Your task to perform on an android device: Clear all items from cart on costco. Image 0: 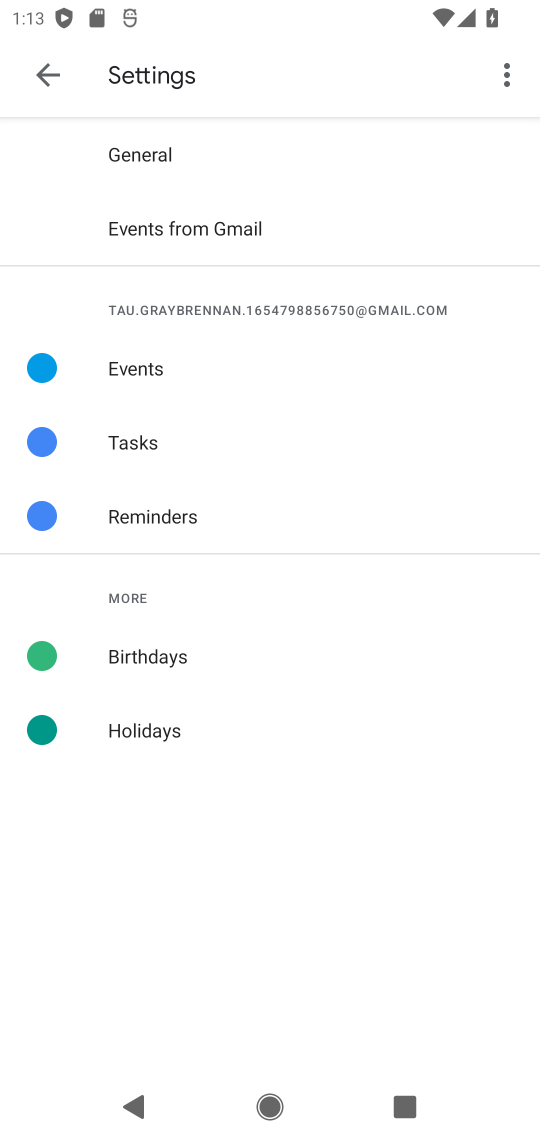
Step 0: press home button
Your task to perform on an android device: Clear all items from cart on costco. Image 1: 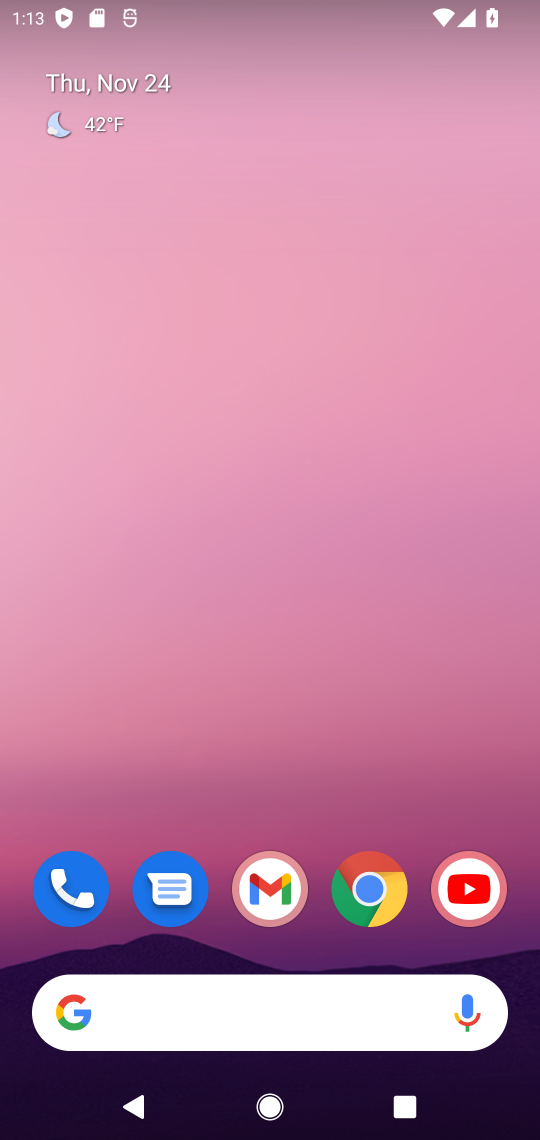
Step 1: click (365, 893)
Your task to perform on an android device: Clear all items from cart on costco. Image 2: 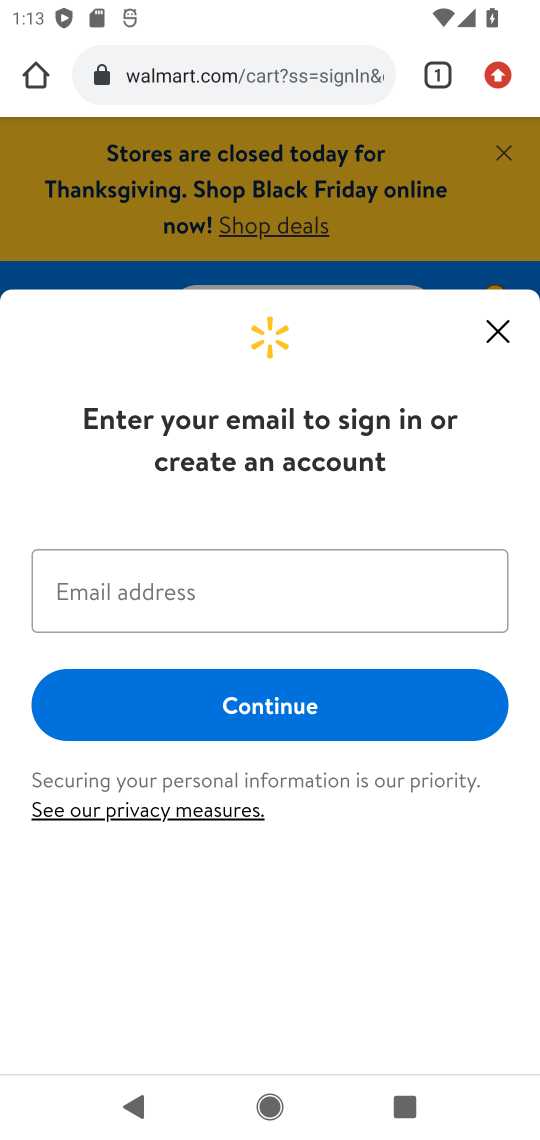
Step 2: click (150, 76)
Your task to perform on an android device: Clear all items from cart on costco. Image 3: 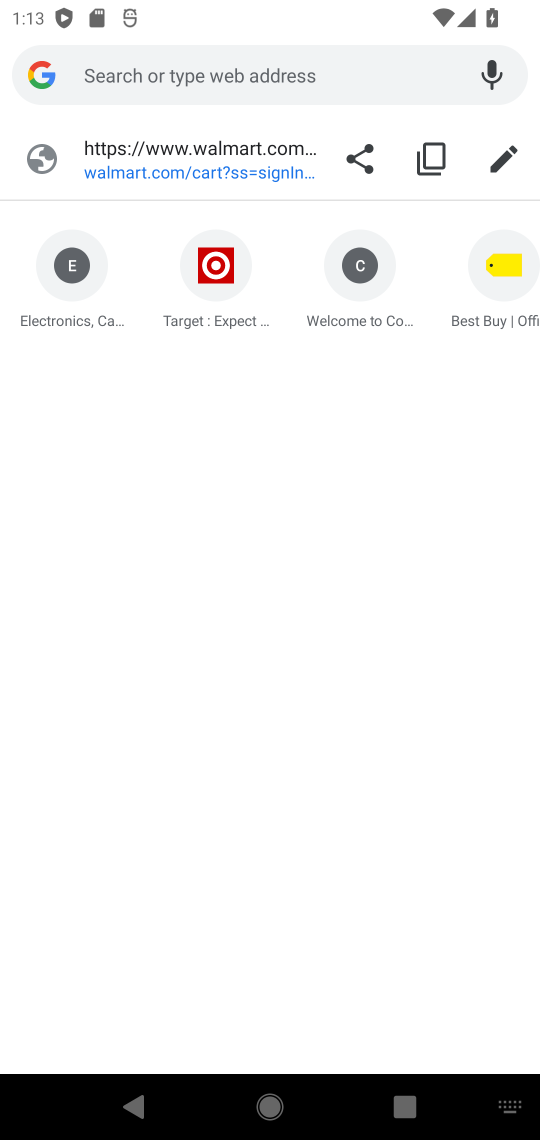
Step 3: type "costco.com"
Your task to perform on an android device: Clear all items from cart on costco. Image 4: 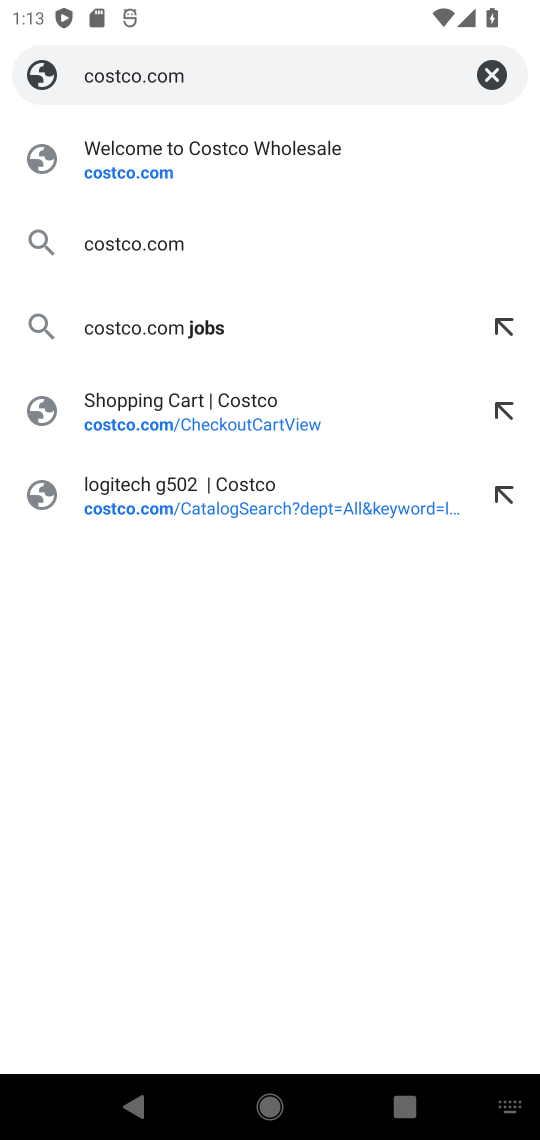
Step 4: click (95, 173)
Your task to perform on an android device: Clear all items from cart on costco. Image 5: 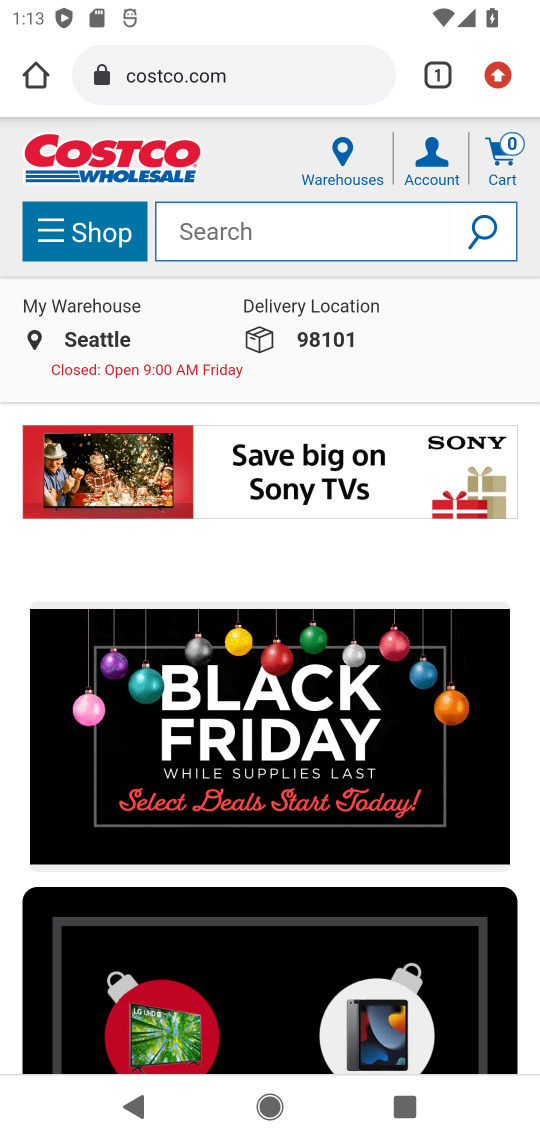
Step 5: click (504, 167)
Your task to perform on an android device: Clear all items from cart on costco. Image 6: 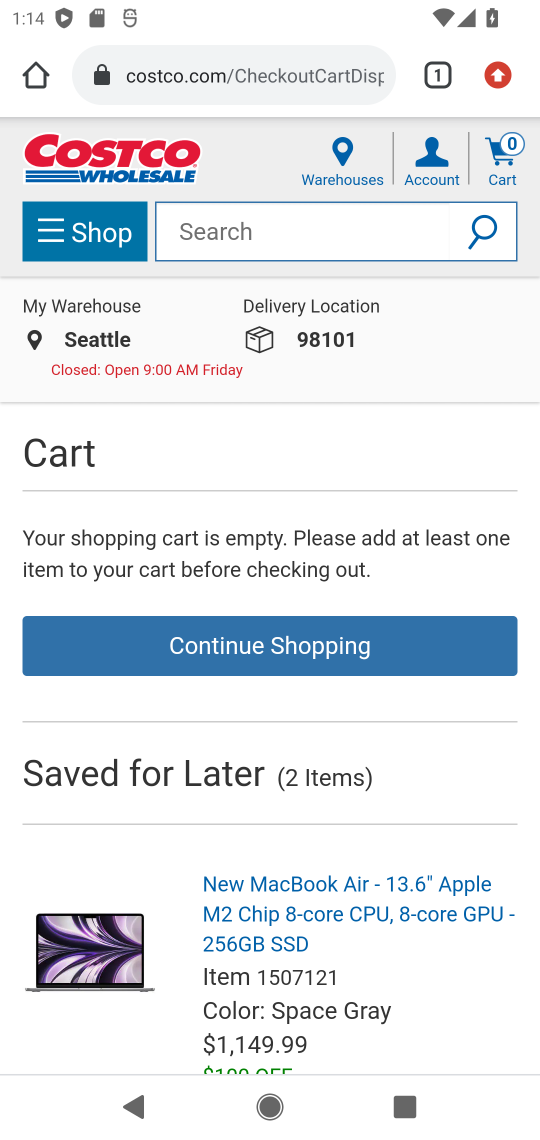
Step 6: task complete